Your task to perform on an android device: change the clock style Image 0: 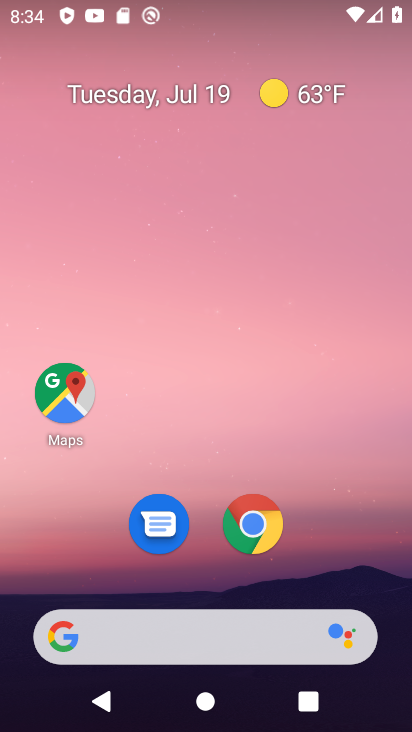
Step 0: click (322, 158)
Your task to perform on an android device: change the clock style Image 1: 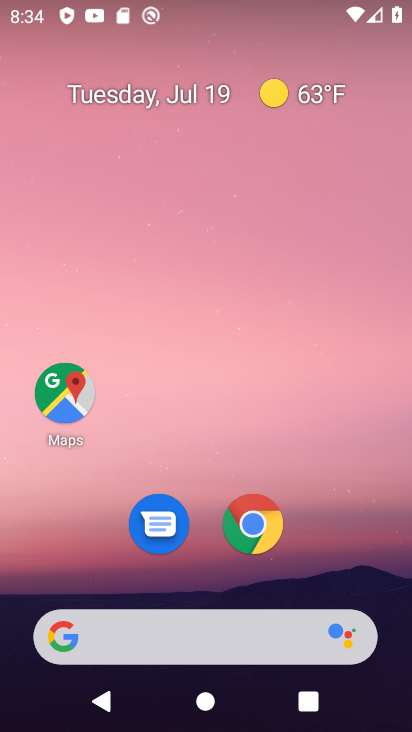
Step 1: drag from (194, 595) to (320, 30)
Your task to perform on an android device: change the clock style Image 2: 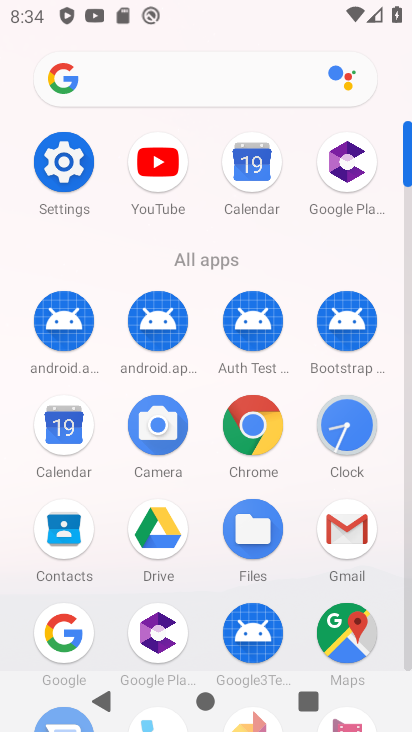
Step 2: click (346, 435)
Your task to perform on an android device: change the clock style Image 3: 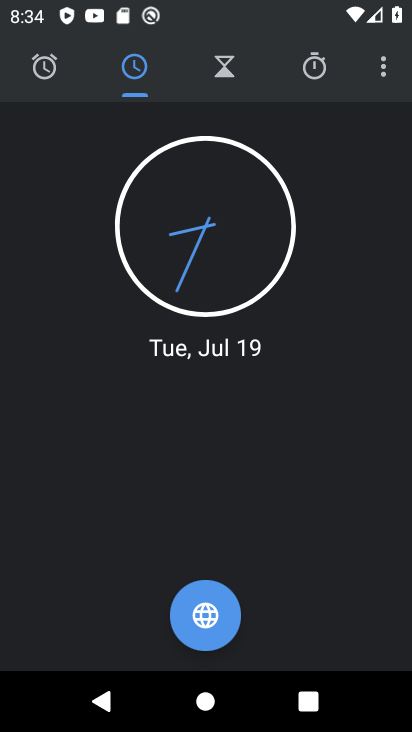
Step 3: click (387, 65)
Your task to perform on an android device: change the clock style Image 4: 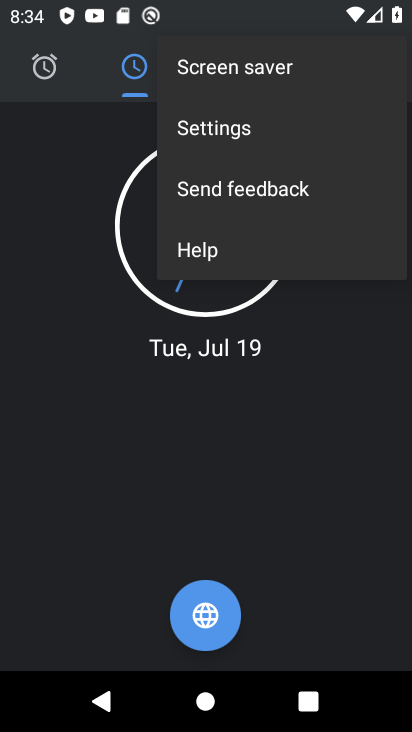
Step 4: click (241, 126)
Your task to perform on an android device: change the clock style Image 5: 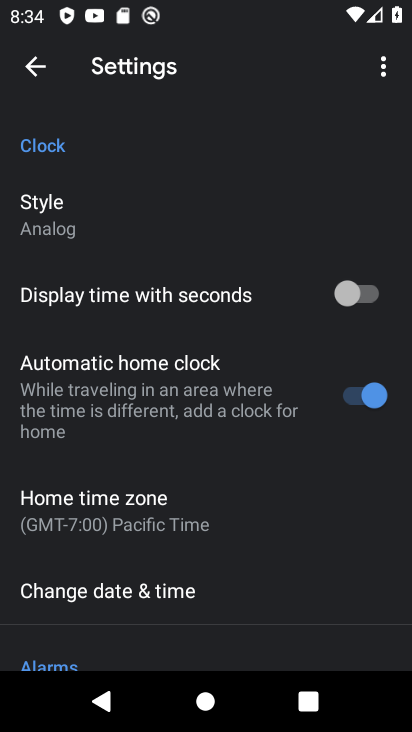
Step 5: click (44, 212)
Your task to perform on an android device: change the clock style Image 6: 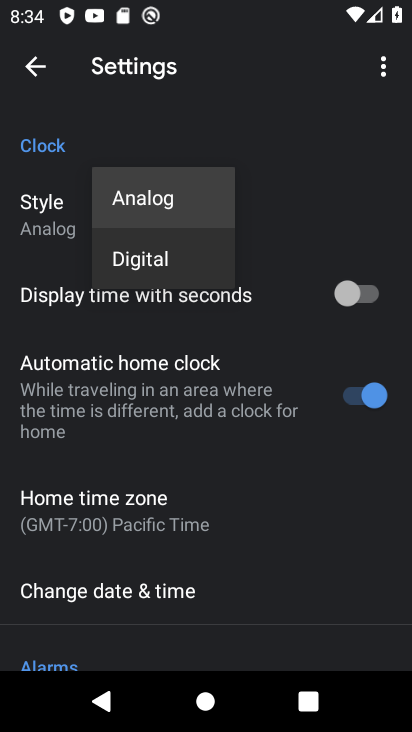
Step 6: click (180, 250)
Your task to perform on an android device: change the clock style Image 7: 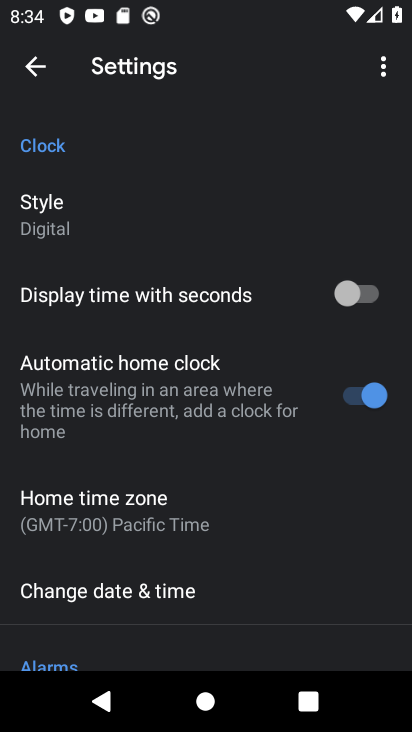
Step 7: task complete